Your task to perform on an android device: search for starred emails in the gmail app Image 0: 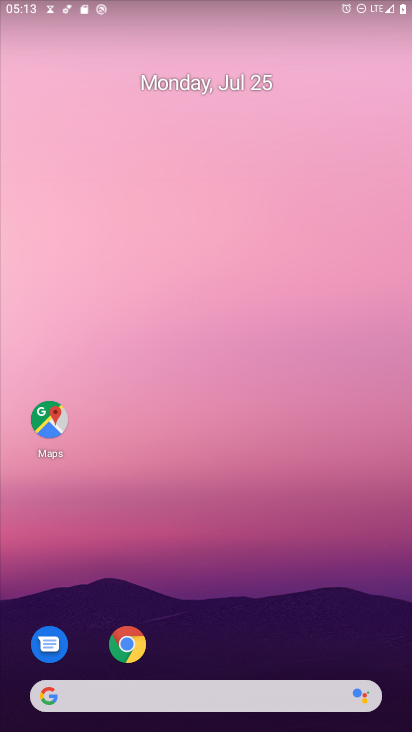
Step 0: press home button
Your task to perform on an android device: search for starred emails in the gmail app Image 1: 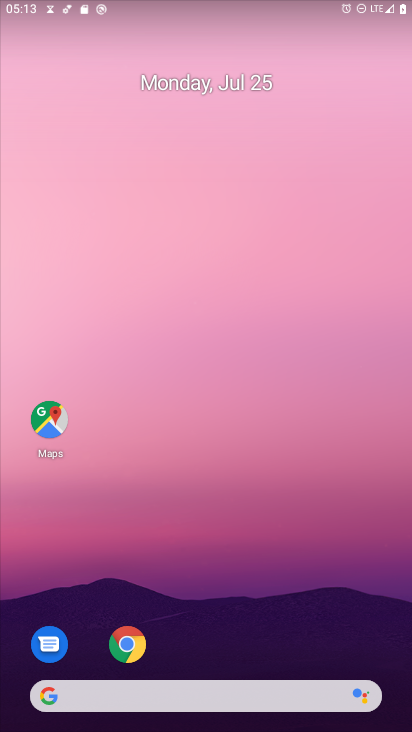
Step 1: drag from (323, 620) to (223, 129)
Your task to perform on an android device: search for starred emails in the gmail app Image 2: 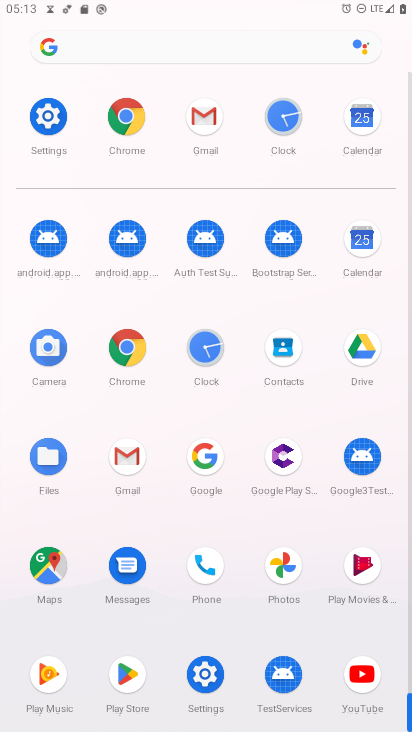
Step 2: click (209, 115)
Your task to perform on an android device: search for starred emails in the gmail app Image 3: 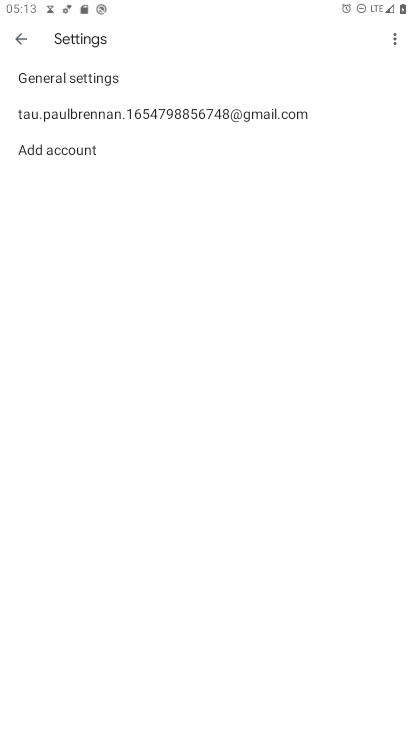
Step 3: click (15, 36)
Your task to perform on an android device: search for starred emails in the gmail app Image 4: 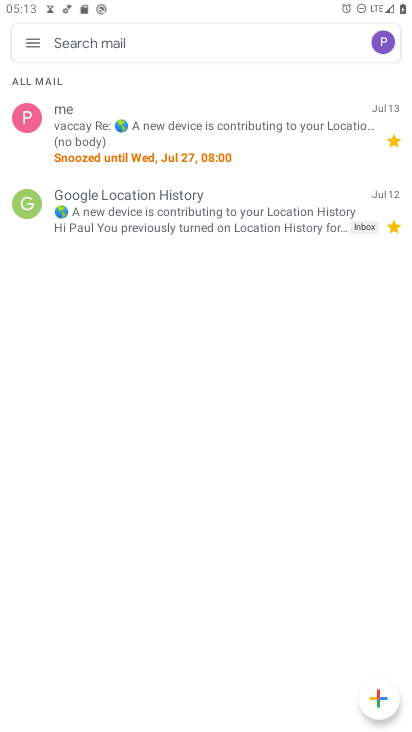
Step 4: click (21, 35)
Your task to perform on an android device: search for starred emails in the gmail app Image 5: 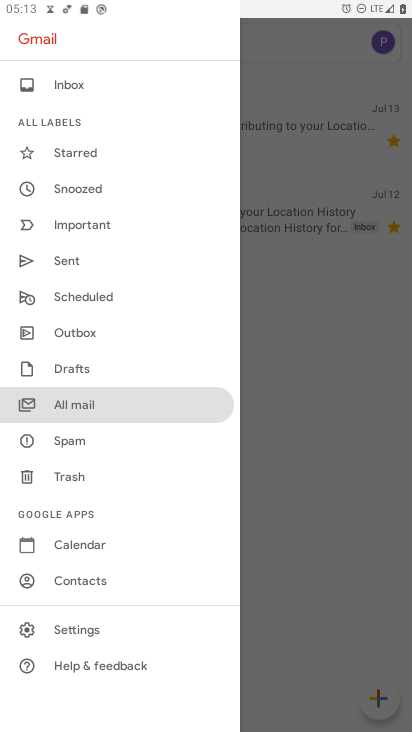
Step 5: click (77, 151)
Your task to perform on an android device: search for starred emails in the gmail app Image 6: 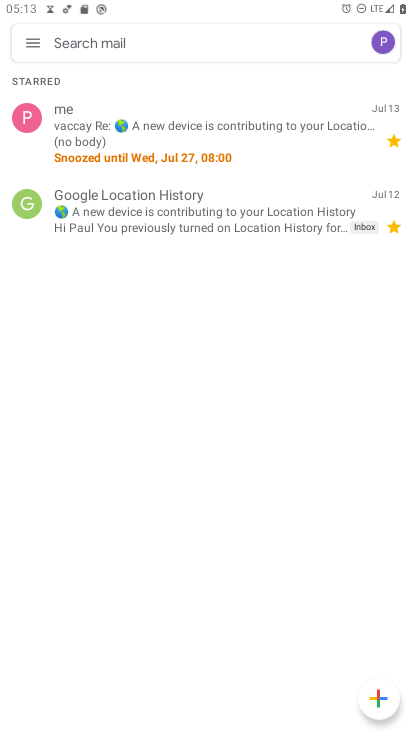
Step 6: task complete